Your task to perform on an android device: Play the last video I watched on Youtube Image 0: 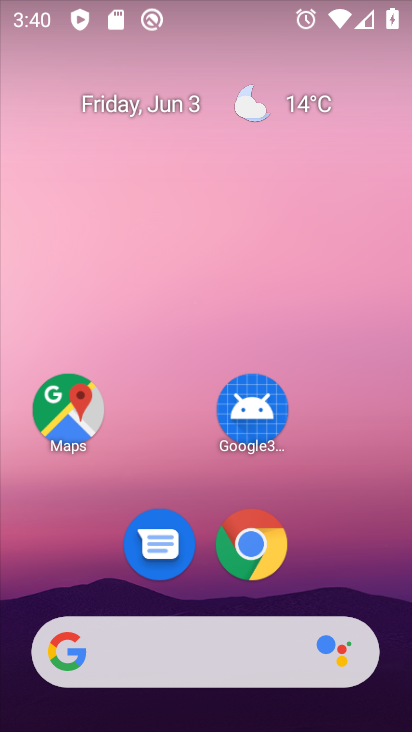
Step 0: drag from (75, 596) to (203, 118)
Your task to perform on an android device: Play the last video I watched on Youtube Image 1: 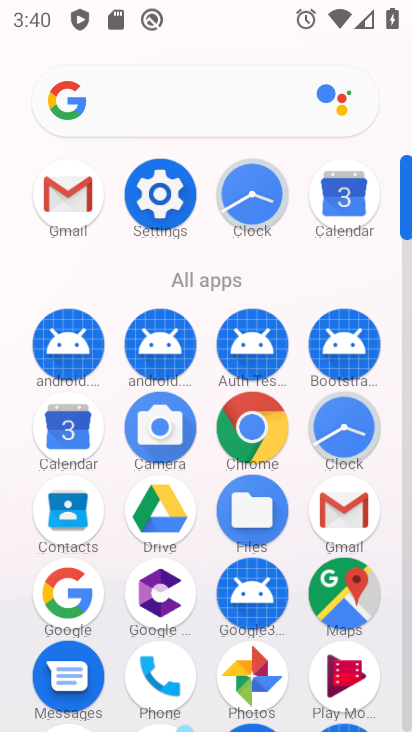
Step 1: drag from (189, 574) to (280, 294)
Your task to perform on an android device: Play the last video I watched on Youtube Image 2: 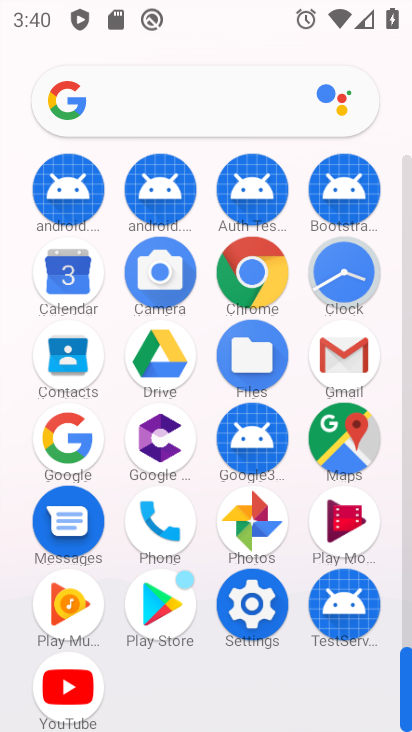
Step 2: click (73, 673)
Your task to perform on an android device: Play the last video I watched on Youtube Image 3: 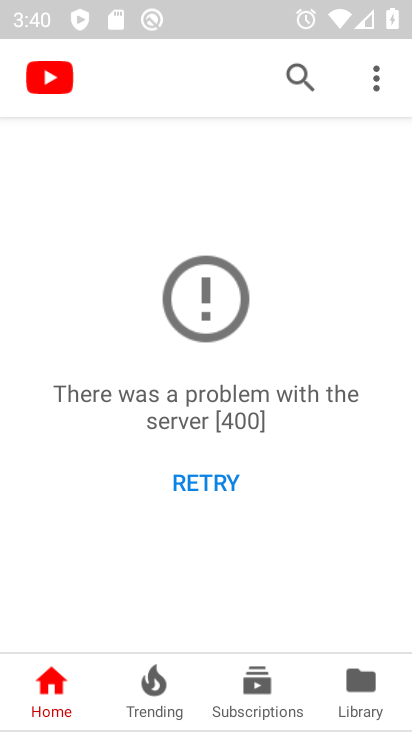
Step 3: click (357, 696)
Your task to perform on an android device: Play the last video I watched on Youtube Image 4: 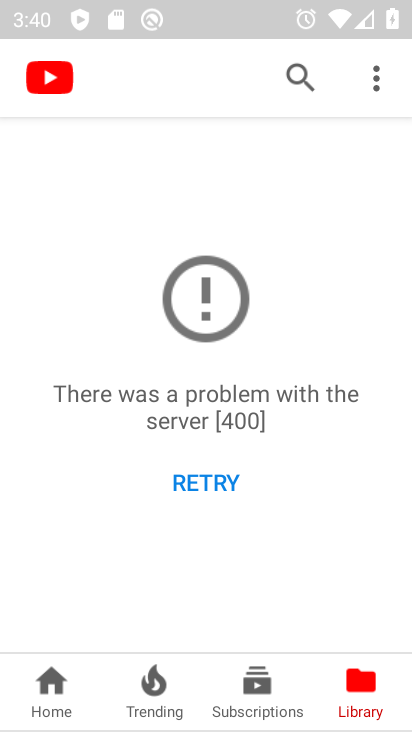
Step 4: click (357, 696)
Your task to perform on an android device: Play the last video I watched on Youtube Image 5: 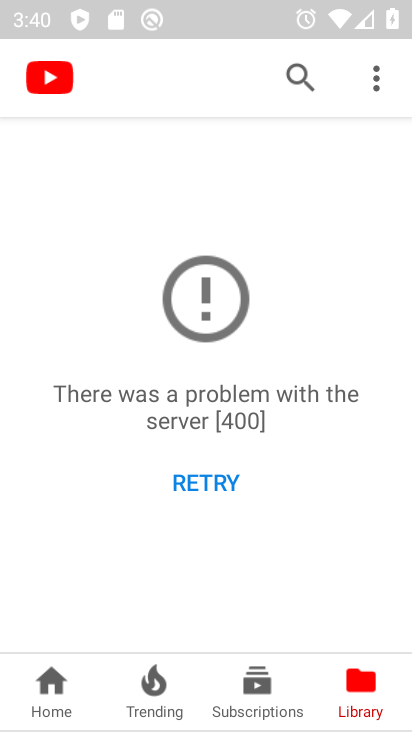
Step 5: click (357, 696)
Your task to perform on an android device: Play the last video I watched on Youtube Image 6: 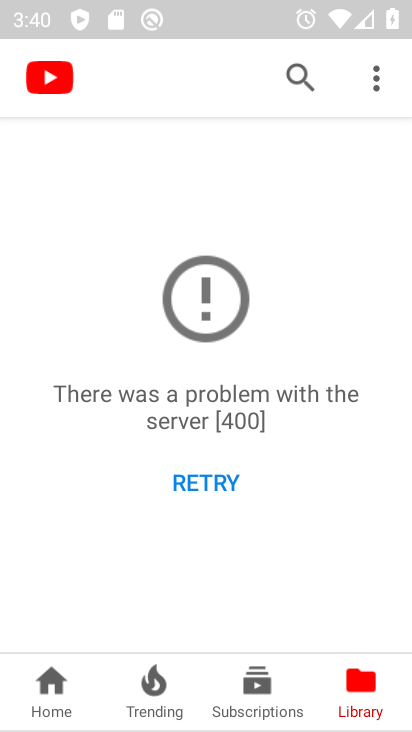
Step 6: click (357, 696)
Your task to perform on an android device: Play the last video I watched on Youtube Image 7: 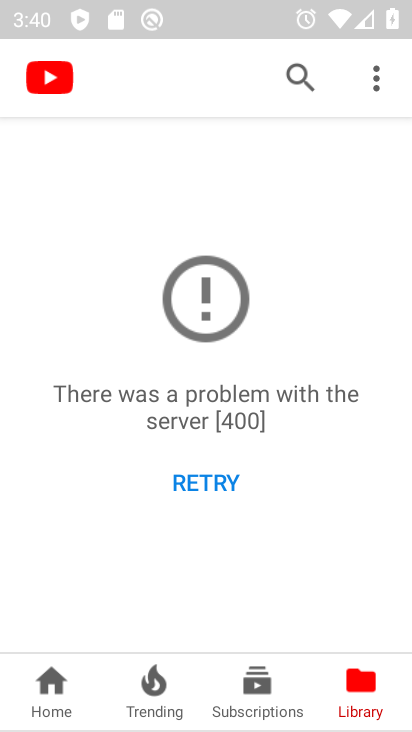
Step 7: task complete